Your task to perform on an android device: Add logitech g502 to the cart on costco, then select checkout. Image 0: 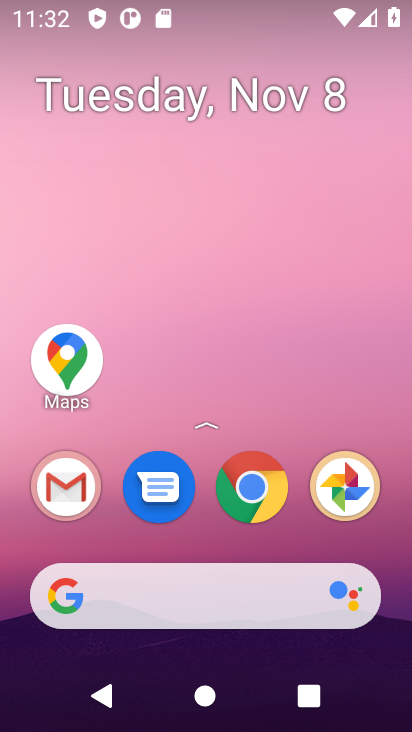
Step 0: click (170, 584)
Your task to perform on an android device: Add logitech g502 to the cart on costco, then select checkout. Image 1: 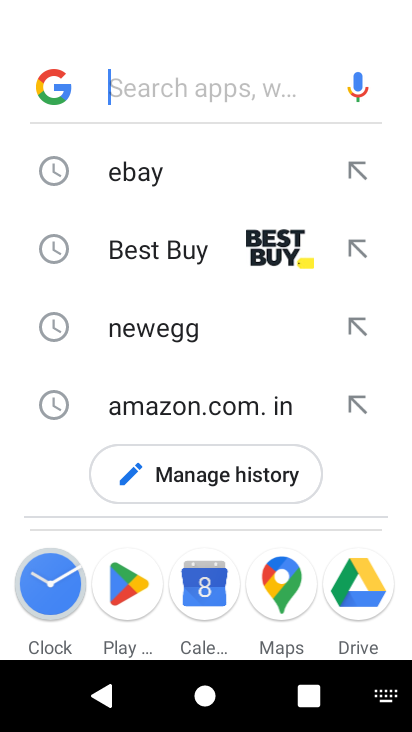
Step 1: type "costco"
Your task to perform on an android device: Add logitech g502 to the cart on costco, then select checkout. Image 2: 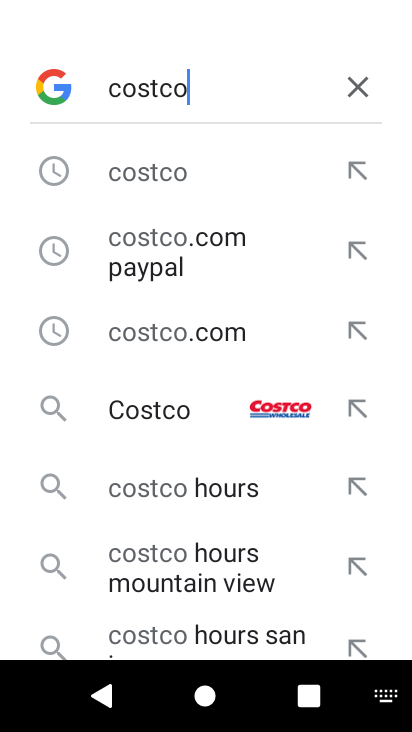
Step 2: click (264, 411)
Your task to perform on an android device: Add logitech g502 to the cart on costco, then select checkout. Image 3: 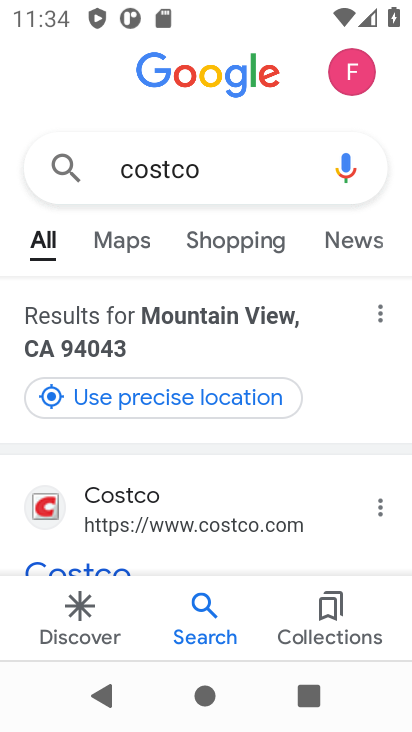
Step 3: drag from (192, 511) to (142, 510)
Your task to perform on an android device: Add logitech g502 to the cart on costco, then select checkout. Image 4: 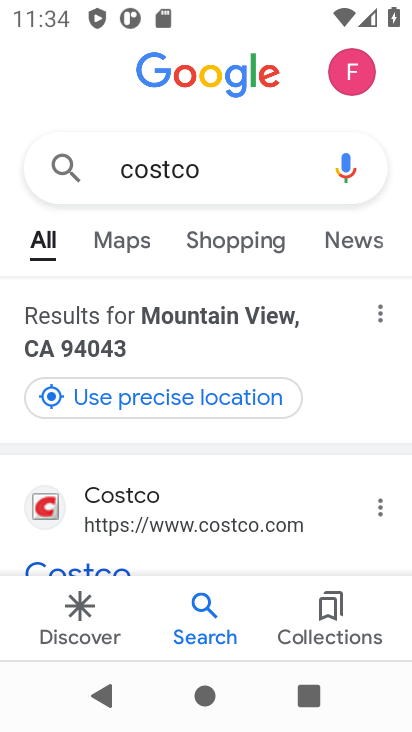
Step 4: click (142, 510)
Your task to perform on an android device: Add logitech g502 to the cart on costco, then select checkout. Image 5: 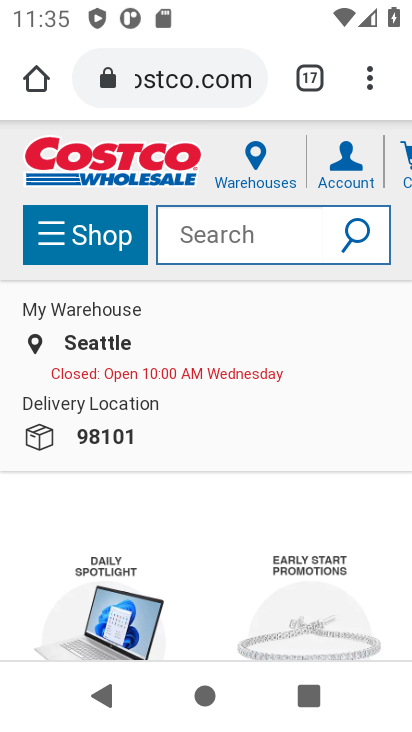
Step 5: click (327, 240)
Your task to perform on an android device: Add logitech g502 to the cart on costco, then select checkout. Image 6: 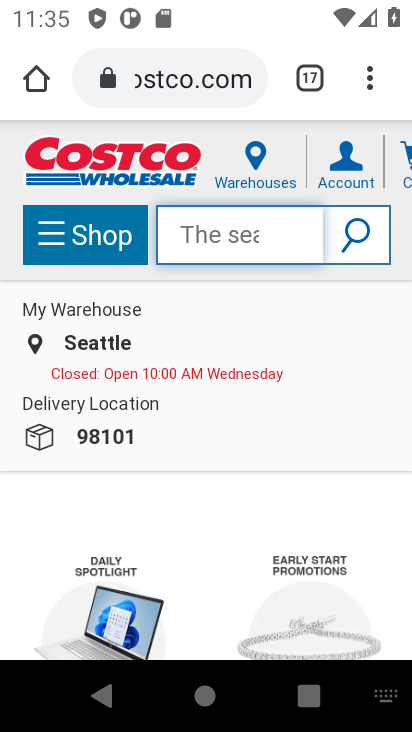
Step 6: type "logitech g502 "
Your task to perform on an android device: Add logitech g502 to the cart on costco, then select checkout. Image 7: 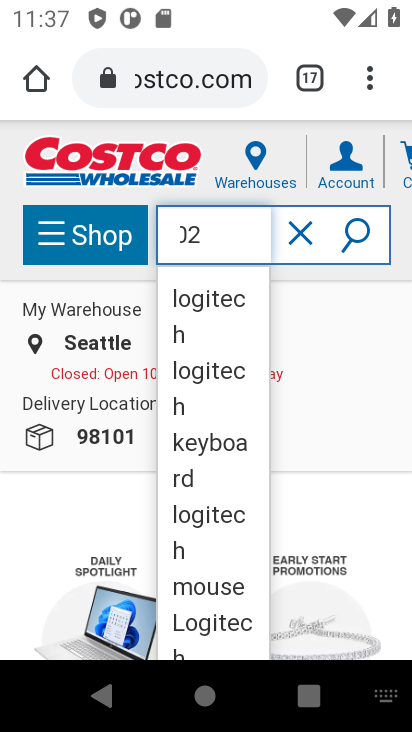
Step 7: click (360, 237)
Your task to perform on an android device: Add logitech g502 to the cart on costco, then select checkout. Image 8: 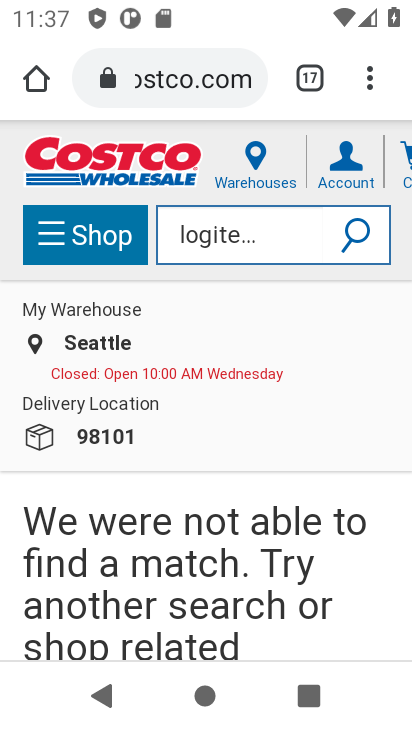
Step 8: task complete